Your task to perform on an android device: turn on priority inbox in the gmail app Image 0: 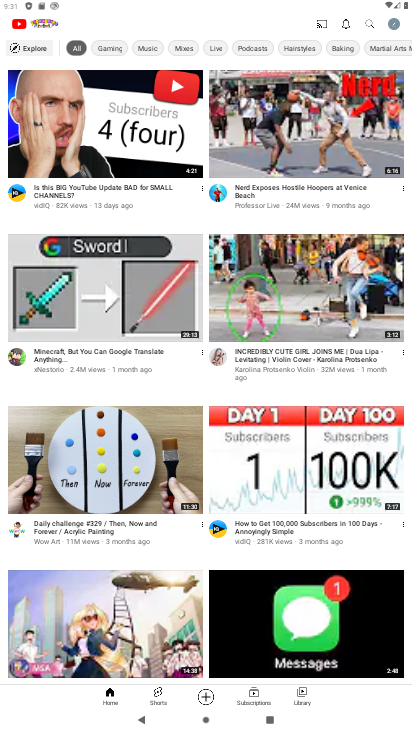
Step 0: press home button
Your task to perform on an android device: turn on priority inbox in the gmail app Image 1: 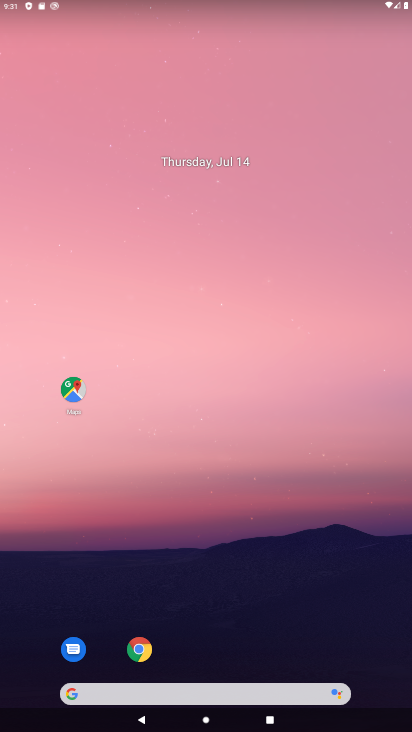
Step 1: drag from (194, 659) to (254, 144)
Your task to perform on an android device: turn on priority inbox in the gmail app Image 2: 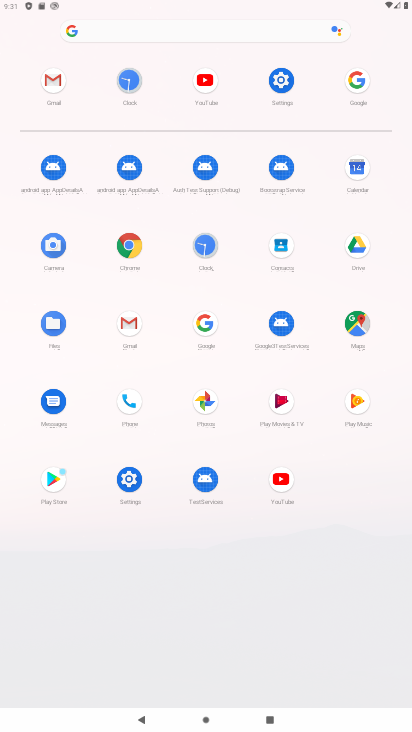
Step 2: click (56, 92)
Your task to perform on an android device: turn on priority inbox in the gmail app Image 3: 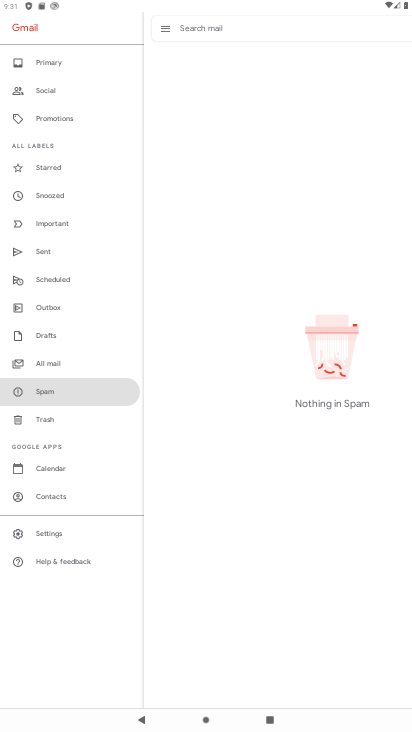
Step 3: click (54, 534)
Your task to perform on an android device: turn on priority inbox in the gmail app Image 4: 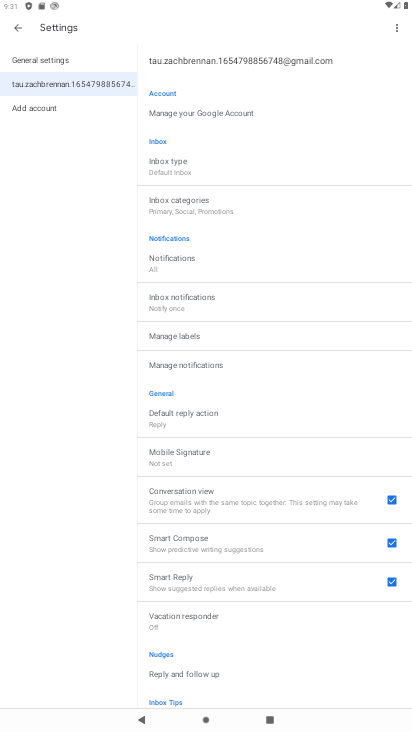
Step 4: click (187, 173)
Your task to perform on an android device: turn on priority inbox in the gmail app Image 5: 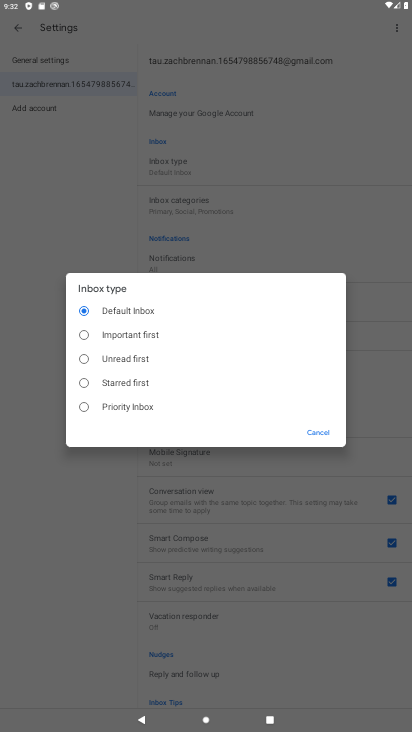
Step 5: click (119, 407)
Your task to perform on an android device: turn on priority inbox in the gmail app Image 6: 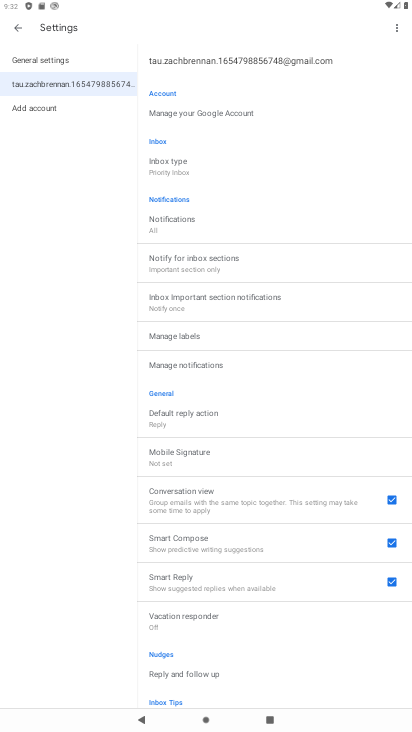
Step 6: task complete